Your task to perform on an android device: Open Google Chrome and open the bookmarks view Image 0: 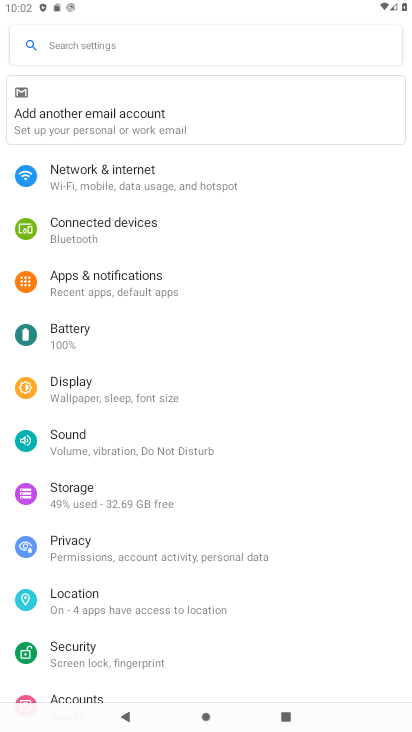
Step 0: press home button
Your task to perform on an android device: Open Google Chrome and open the bookmarks view Image 1: 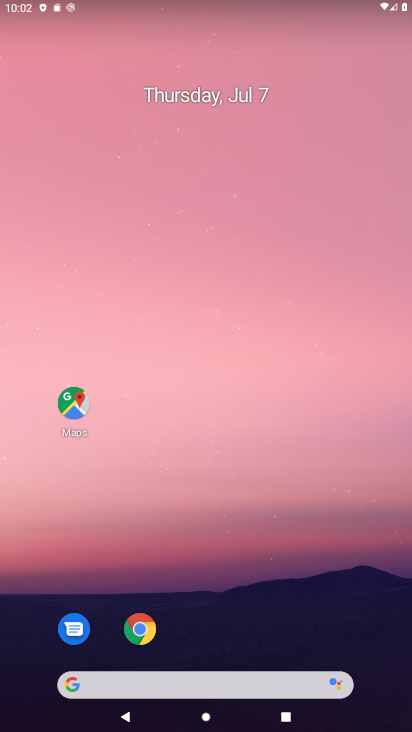
Step 1: click (139, 629)
Your task to perform on an android device: Open Google Chrome and open the bookmarks view Image 2: 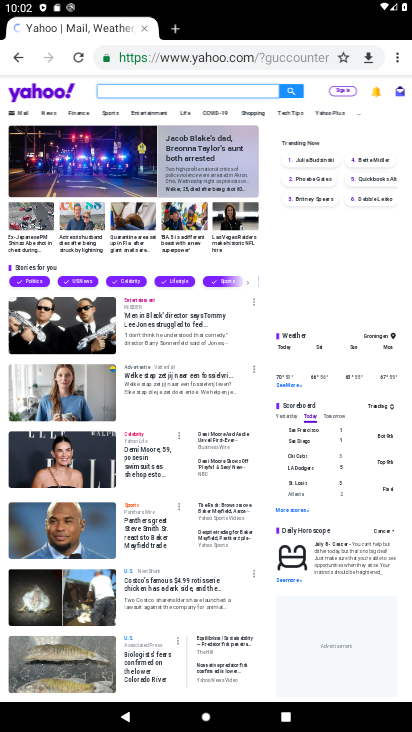
Step 2: click (397, 59)
Your task to perform on an android device: Open Google Chrome and open the bookmarks view Image 3: 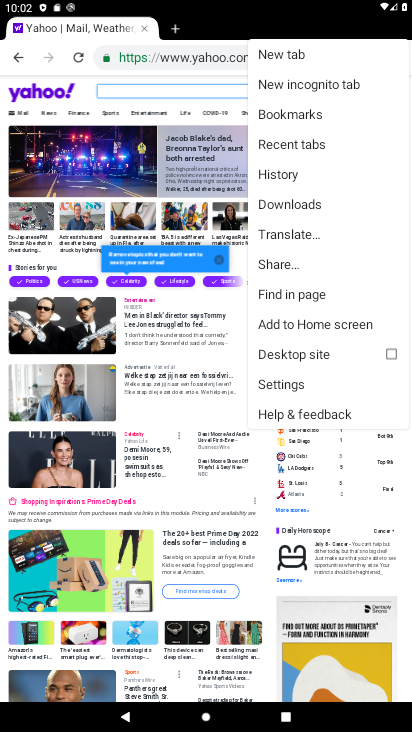
Step 3: click (285, 111)
Your task to perform on an android device: Open Google Chrome and open the bookmarks view Image 4: 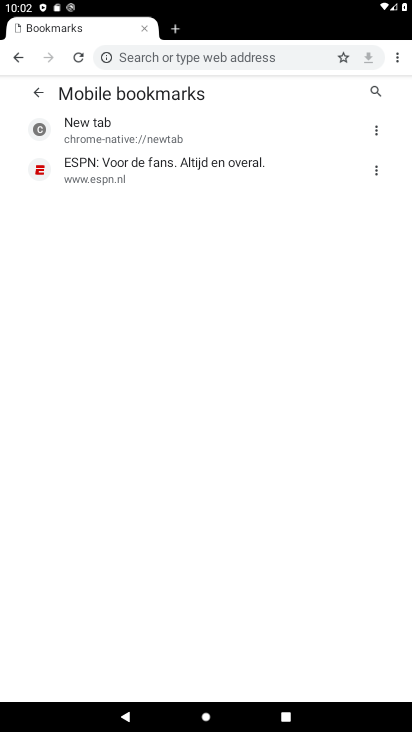
Step 4: click (96, 160)
Your task to perform on an android device: Open Google Chrome and open the bookmarks view Image 5: 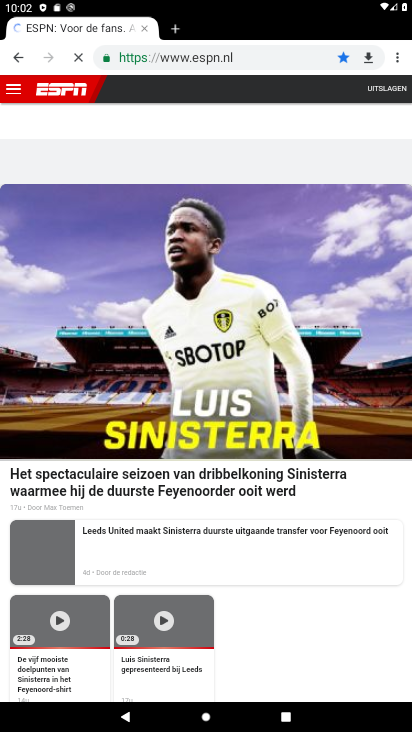
Step 5: task complete